Your task to perform on an android device: Toggle the flashlight Image 0: 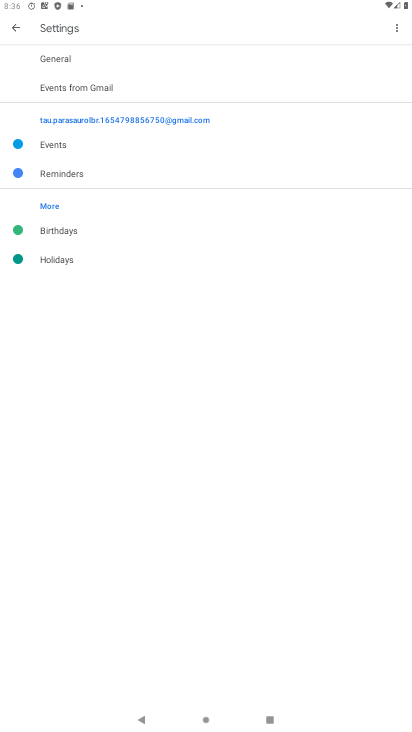
Step 0: press home button
Your task to perform on an android device: Toggle the flashlight Image 1: 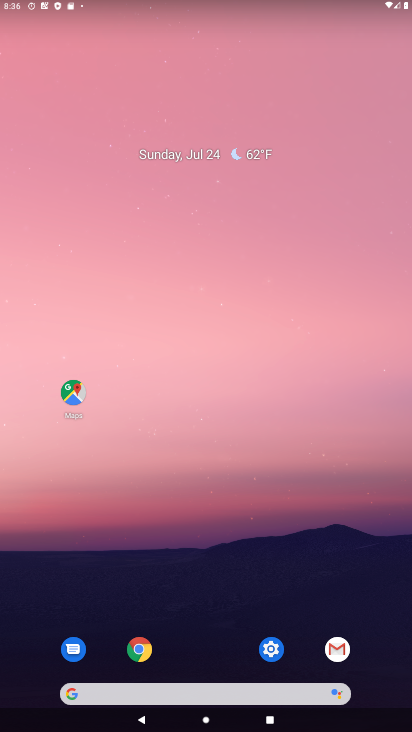
Step 1: click (279, 652)
Your task to perform on an android device: Toggle the flashlight Image 2: 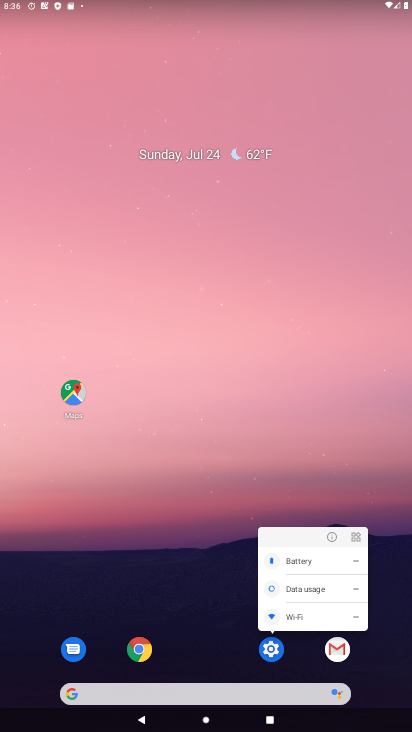
Step 2: click (272, 651)
Your task to perform on an android device: Toggle the flashlight Image 3: 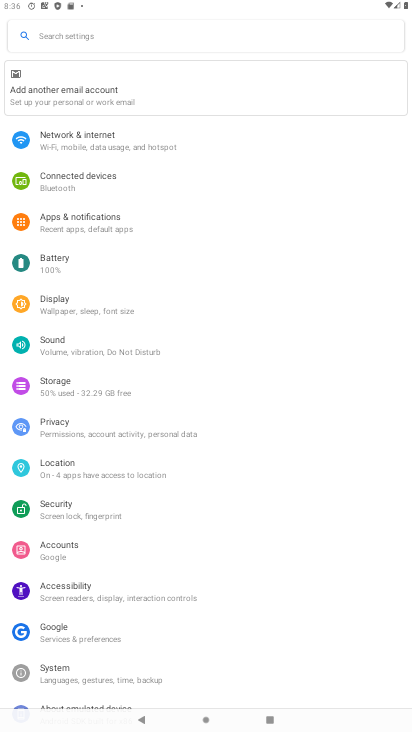
Step 3: click (81, 40)
Your task to perform on an android device: Toggle the flashlight Image 4: 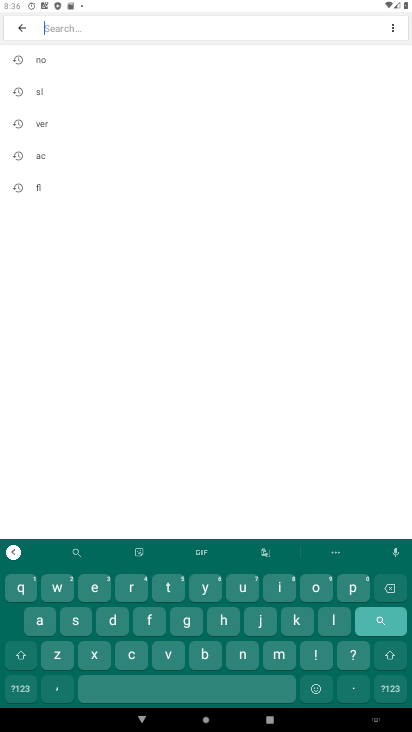
Step 4: click (148, 621)
Your task to perform on an android device: Toggle the flashlight Image 5: 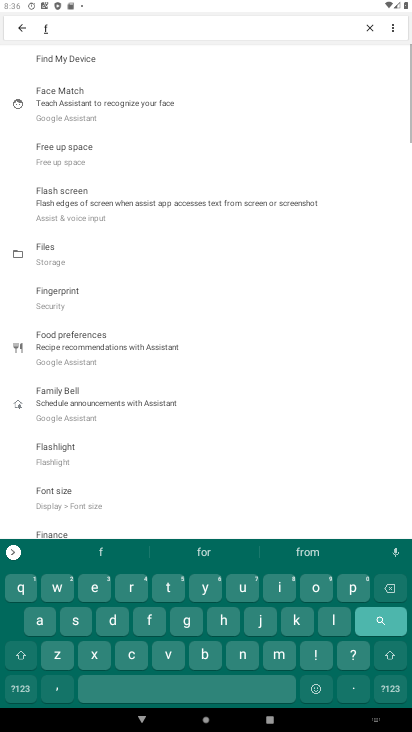
Step 5: click (330, 613)
Your task to perform on an android device: Toggle the flashlight Image 6: 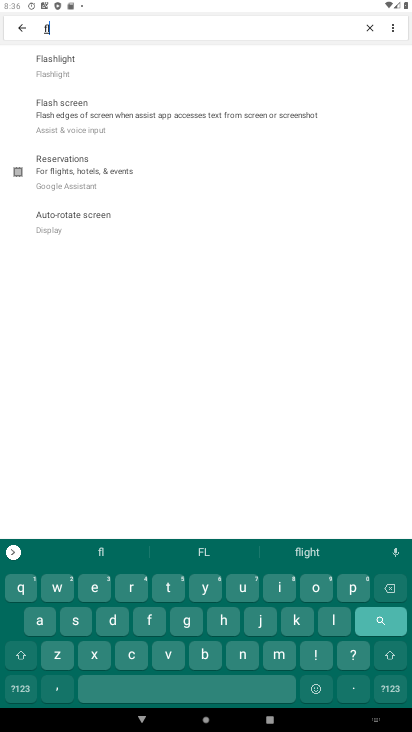
Step 6: click (80, 75)
Your task to perform on an android device: Toggle the flashlight Image 7: 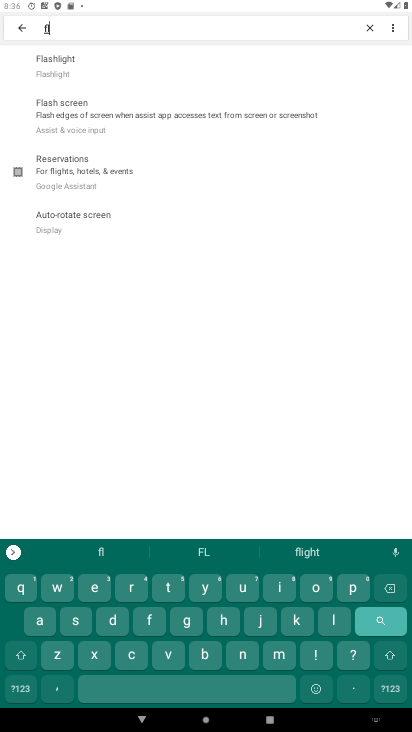
Step 7: task complete